Your task to perform on an android device: find photos in the google photos app Image 0: 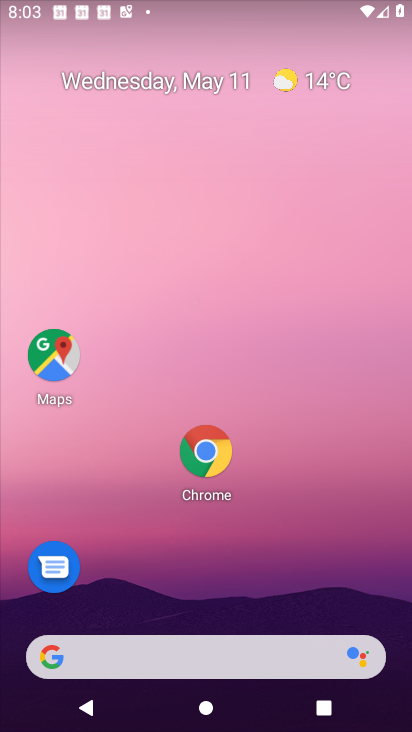
Step 0: drag from (152, 655) to (268, 299)
Your task to perform on an android device: find photos in the google photos app Image 1: 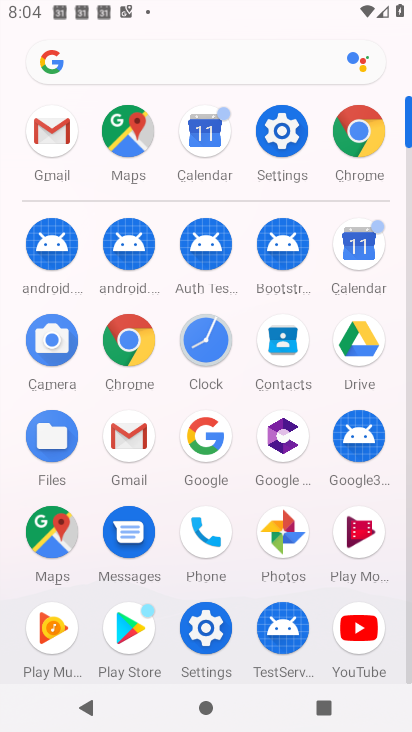
Step 1: click (280, 543)
Your task to perform on an android device: find photos in the google photos app Image 2: 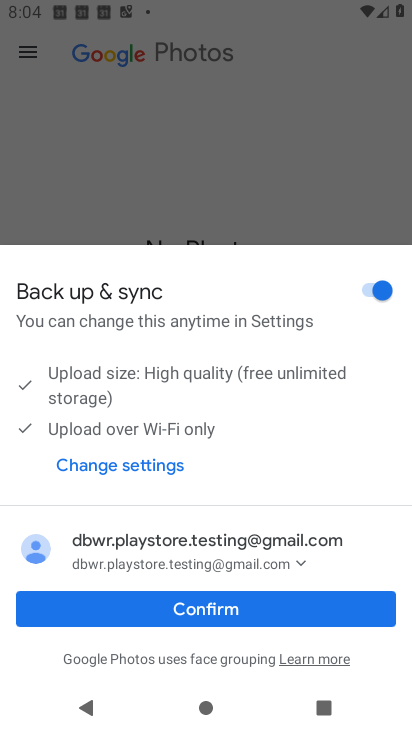
Step 2: click (219, 622)
Your task to perform on an android device: find photos in the google photos app Image 3: 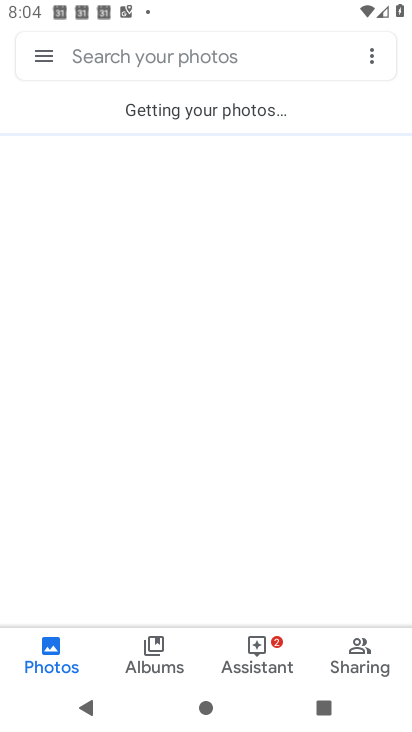
Step 3: click (47, 658)
Your task to perform on an android device: find photos in the google photos app Image 4: 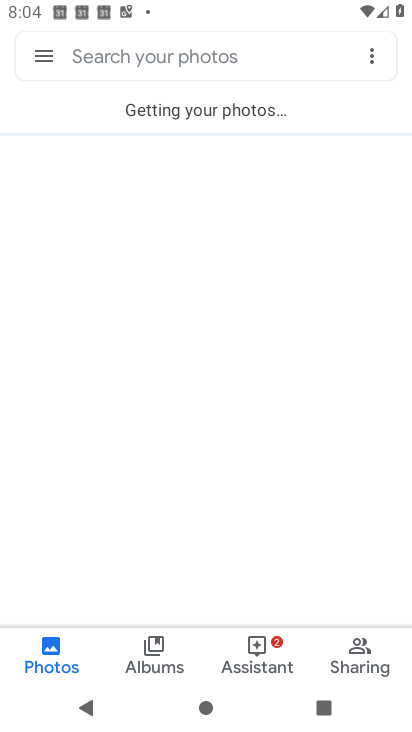
Step 4: task complete